Your task to perform on an android device: change notifications settings Image 0: 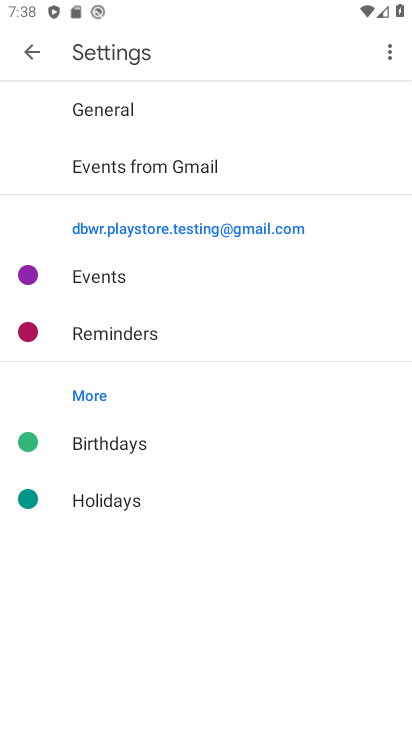
Step 0: drag from (280, 8) to (236, 563)
Your task to perform on an android device: change notifications settings Image 1: 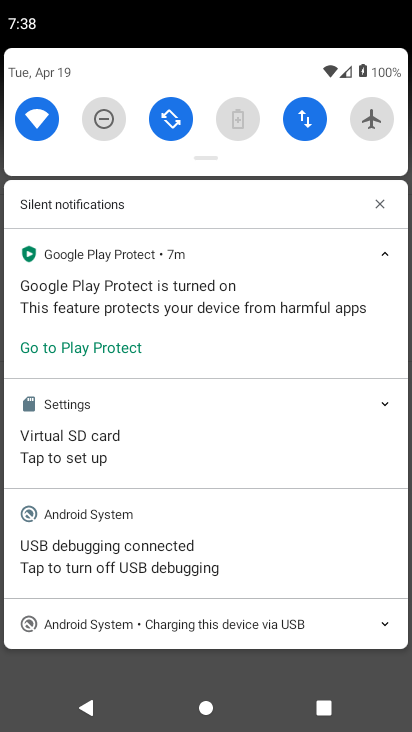
Step 1: drag from (212, 63) to (240, 446)
Your task to perform on an android device: change notifications settings Image 2: 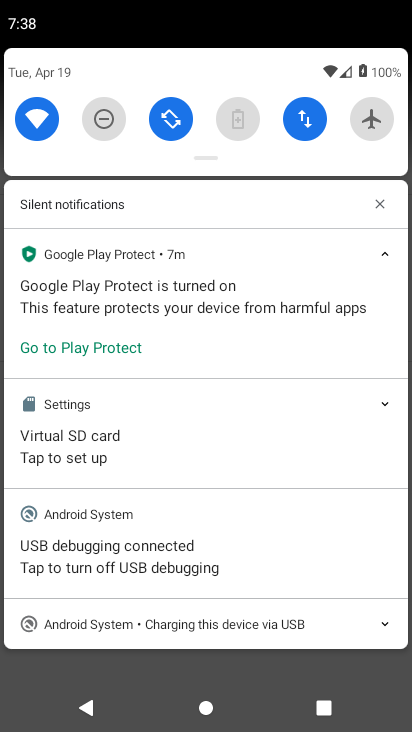
Step 2: drag from (198, 74) to (177, 625)
Your task to perform on an android device: change notifications settings Image 3: 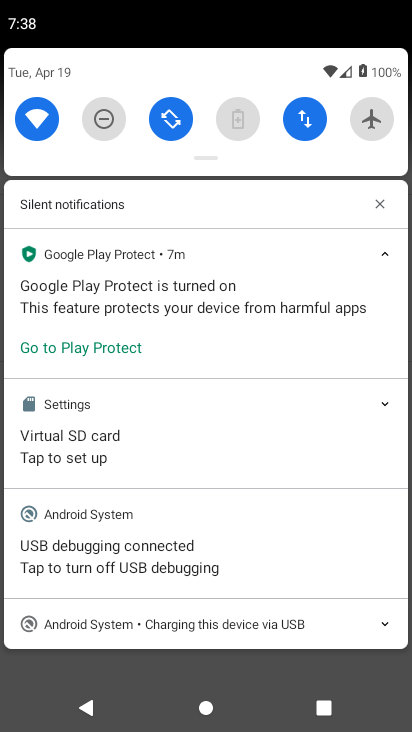
Step 3: drag from (200, 76) to (140, 682)
Your task to perform on an android device: change notifications settings Image 4: 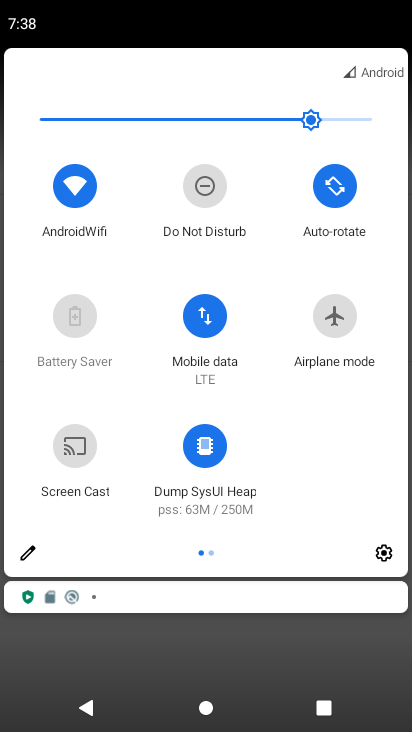
Step 4: click (390, 555)
Your task to perform on an android device: change notifications settings Image 5: 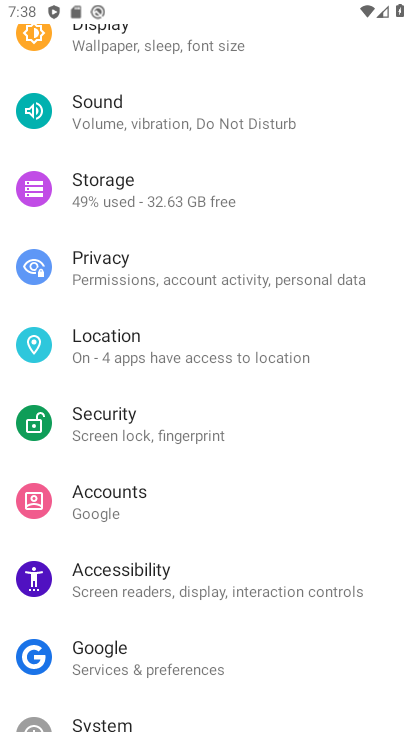
Step 5: drag from (201, 77) to (74, 694)
Your task to perform on an android device: change notifications settings Image 6: 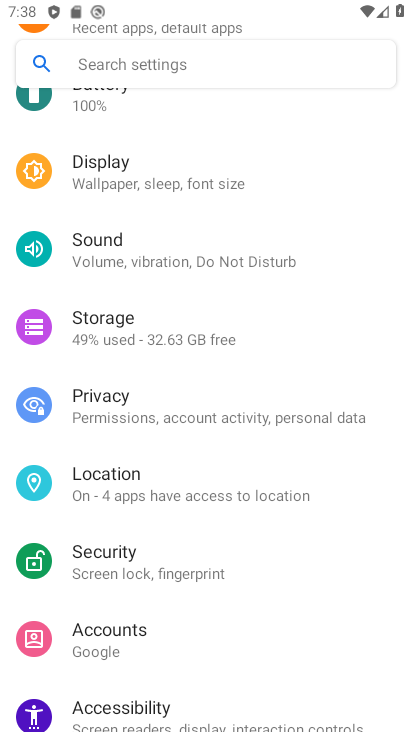
Step 6: drag from (350, 127) to (355, 680)
Your task to perform on an android device: change notifications settings Image 7: 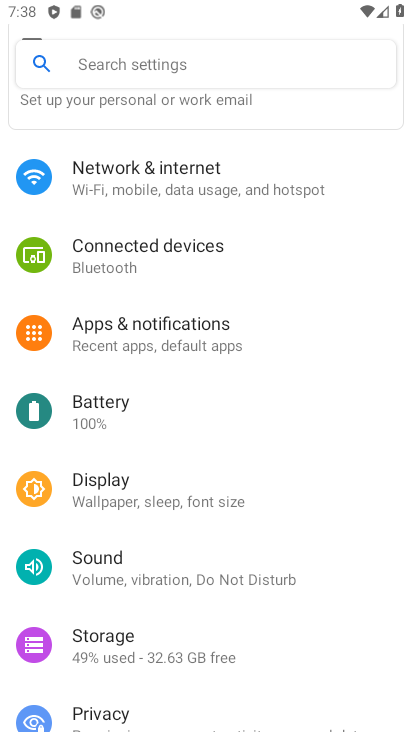
Step 7: click (237, 344)
Your task to perform on an android device: change notifications settings Image 8: 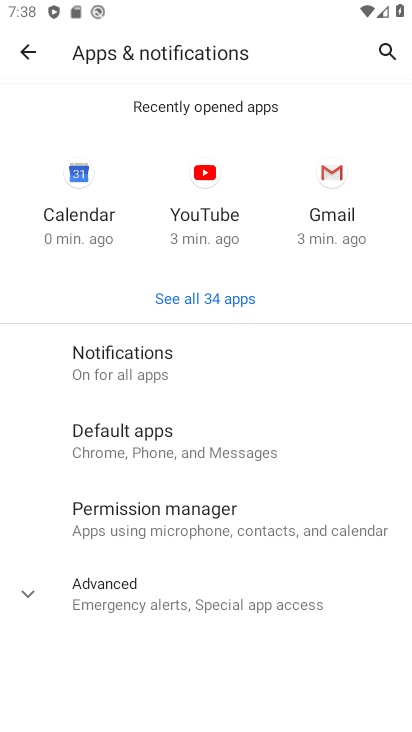
Step 8: click (200, 362)
Your task to perform on an android device: change notifications settings Image 9: 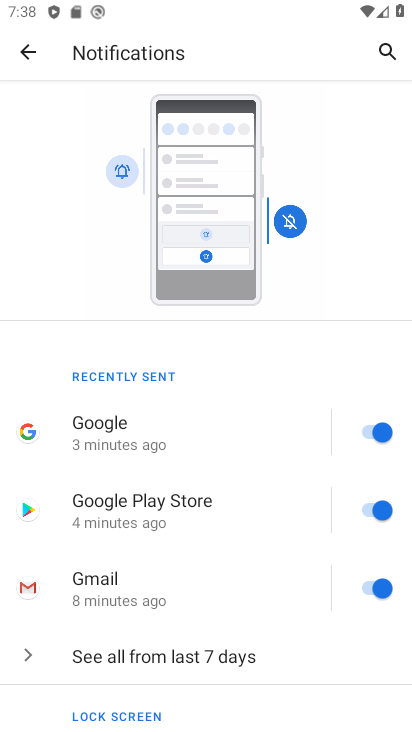
Step 9: drag from (197, 580) to (241, 56)
Your task to perform on an android device: change notifications settings Image 10: 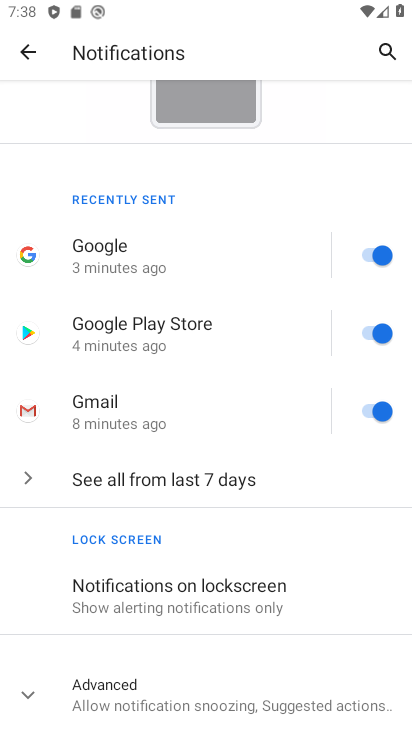
Step 10: drag from (229, 639) to (231, 109)
Your task to perform on an android device: change notifications settings Image 11: 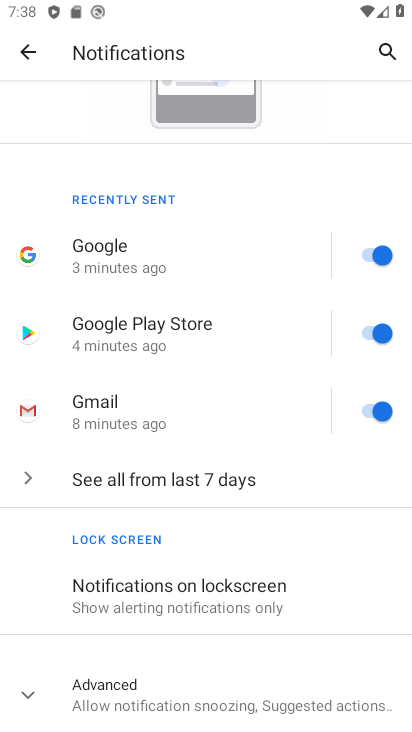
Step 11: click (194, 701)
Your task to perform on an android device: change notifications settings Image 12: 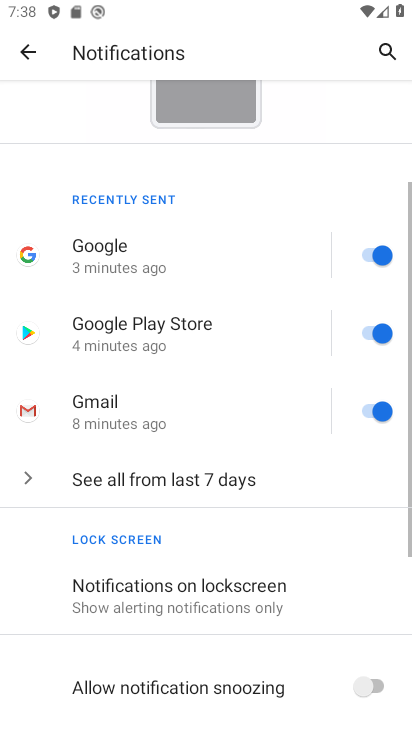
Step 12: drag from (194, 701) to (208, 101)
Your task to perform on an android device: change notifications settings Image 13: 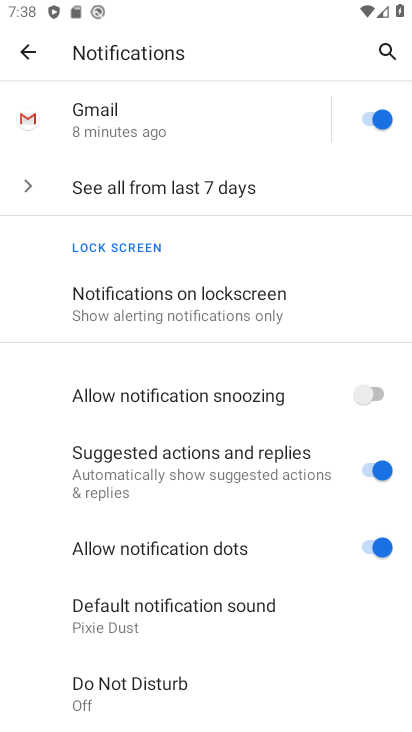
Step 13: click (366, 389)
Your task to perform on an android device: change notifications settings Image 14: 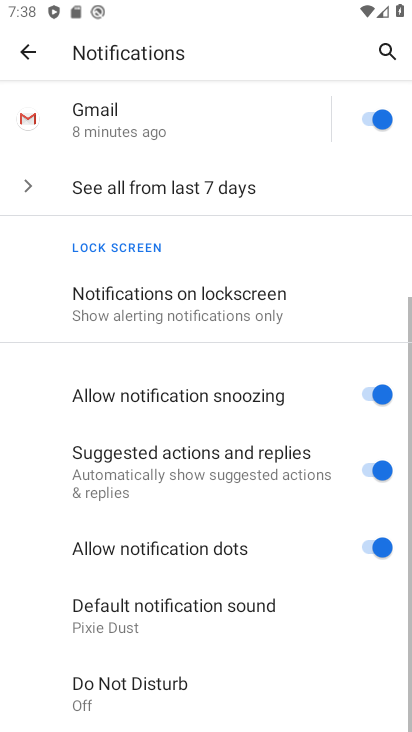
Step 14: click (375, 473)
Your task to perform on an android device: change notifications settings Image 15: 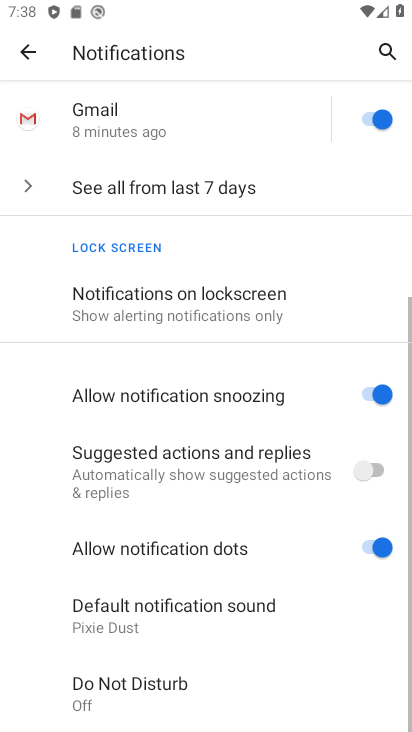
Step 15: click (377, 552)
Your task to perform on an android device: change notifications settings Image 16: 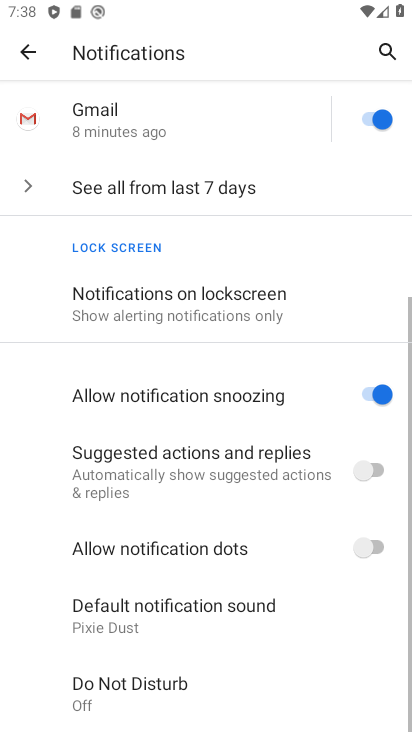
Step 16: task complete